Your task to perform on an android device: change the clock style Image 0: 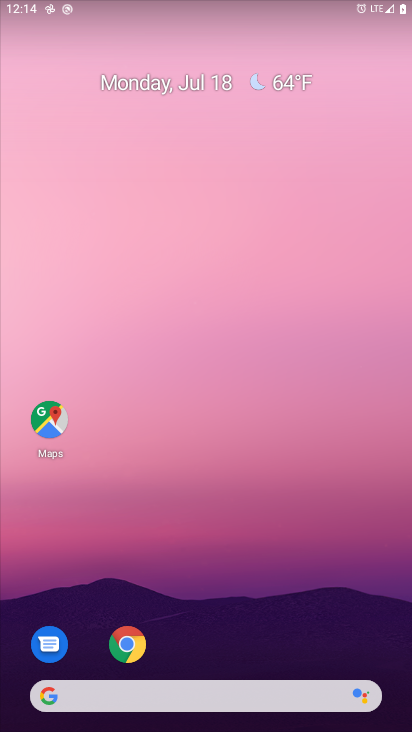
Step 0: press home button
Your task to perform on an android device: change the clock style Image 1: 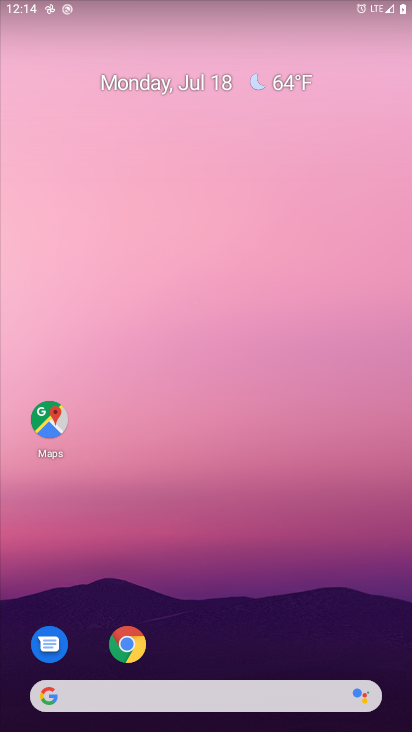
Step 1: drag from (266, 617) to (293, 83)
Your task to perform on an android device: change the clock style Image 2: 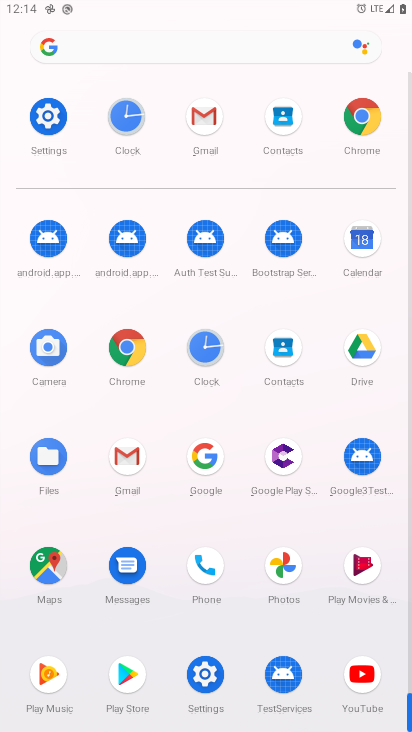
Step 2: click (205, 347)
Your task to perform on an android device: change the clock style Image 3: 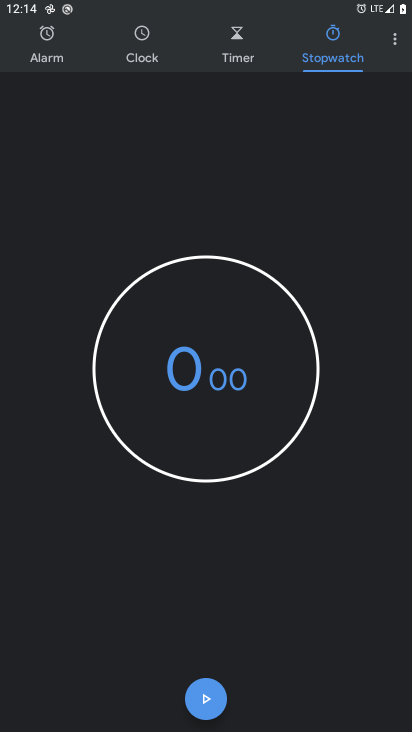
Step 3: click (393, 35)
Your task to perform on an android device: change the clock style Image 4: 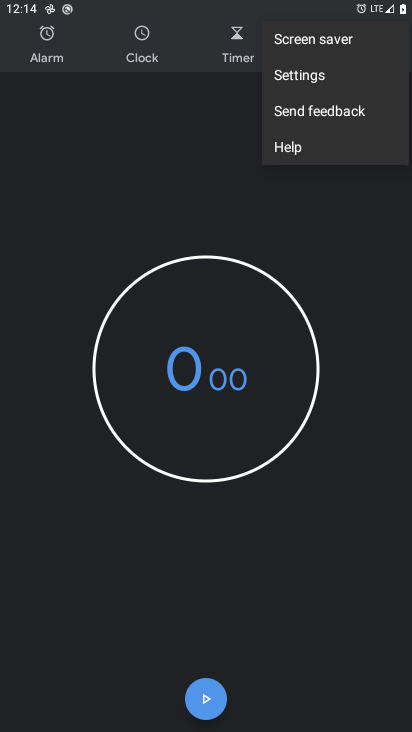
Step 4: click (294, 79)
Your task to perform on an android device: change the clock style Image 5: 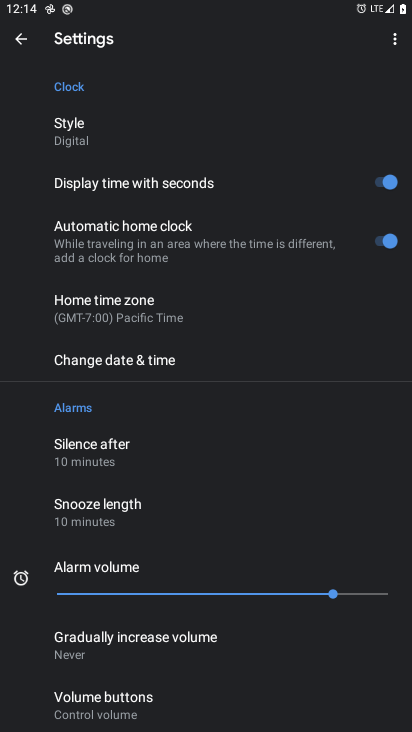
Step 5: click (108, 124)
Your task to perform on an android device: change the clock style Image 6: 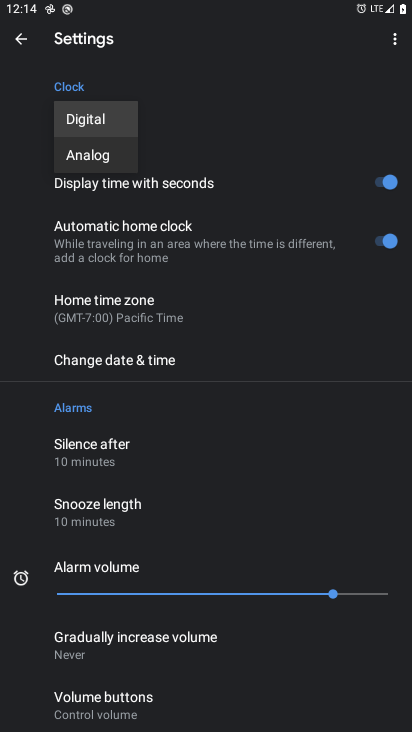
Step 6: click (97, 154)
Your task to perform on an android device: change the clock style Image 7: 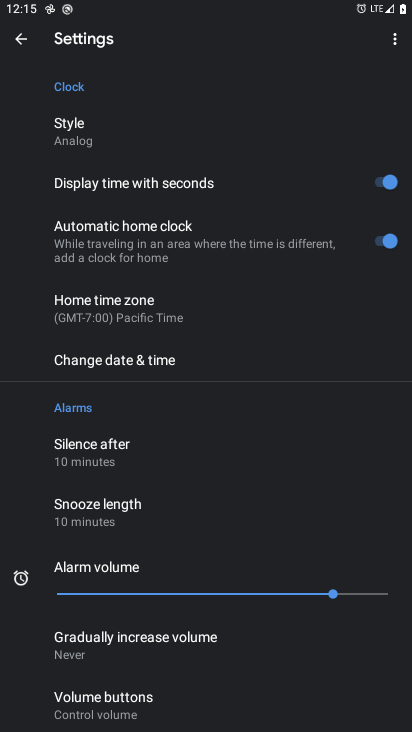
Step 7: task complete